Your task to perform on an android device: Search for Mexican restaurants on Maps Image 0: 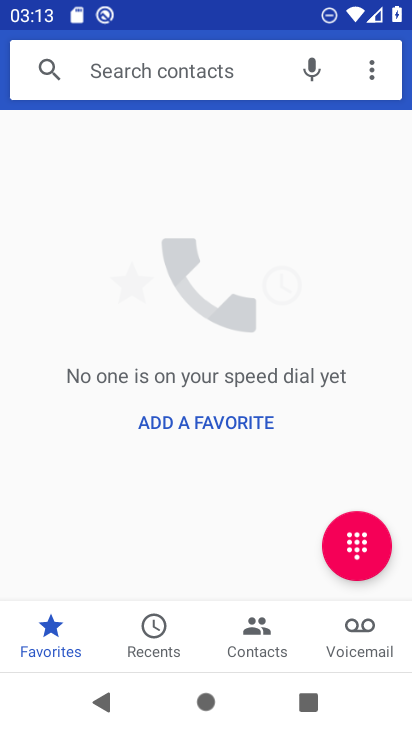
Step 0: press home button
Your task to perform on an android device: Search for Mexican restaurants on Maps Image 1: 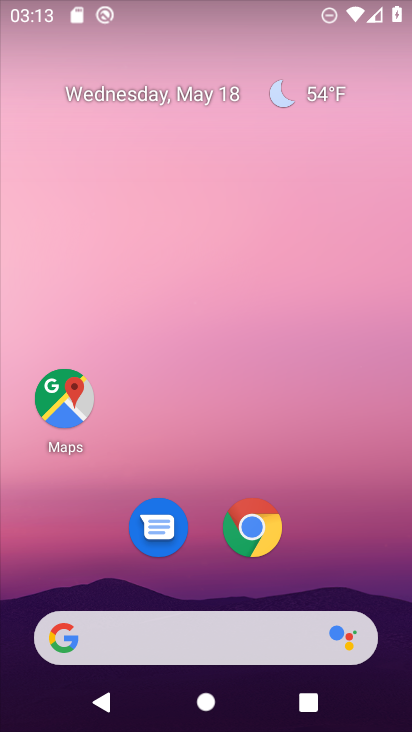
Step 1: click (65, 354)
Your task to perform on an android device: Search for Mexican restaurants on Maps Image 2: 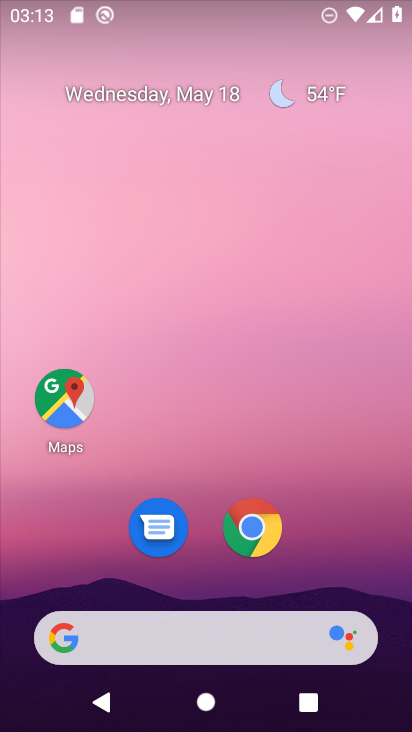
Step 2: click (61, 427)
Your task to perform on an android device: Search for Mexican restaurants on Maps Image 3: 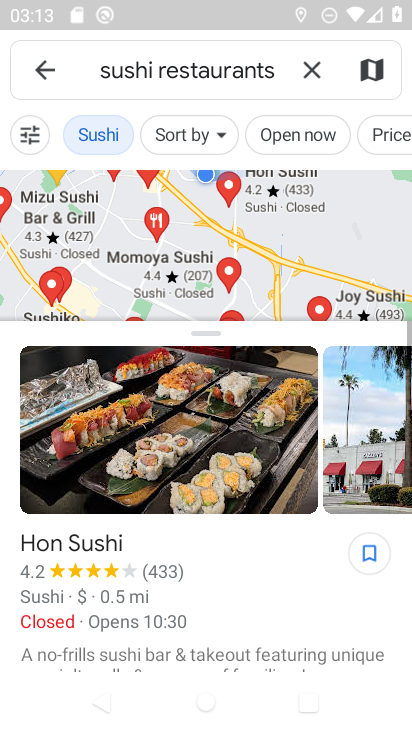
Step 3: click (303, 68)
Your task to perform on an android device: Search for Mexican restaurants on Maps Image 4: 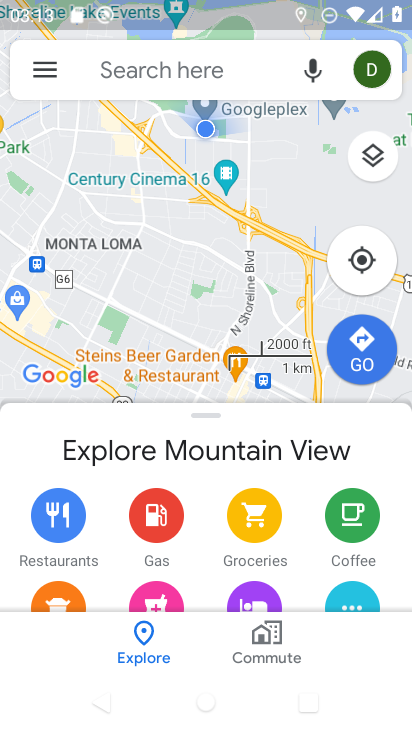
Step 4: click (241, 76)
Your task to perform on an android device: Search for Mexican restaurants on Maps Image 5: 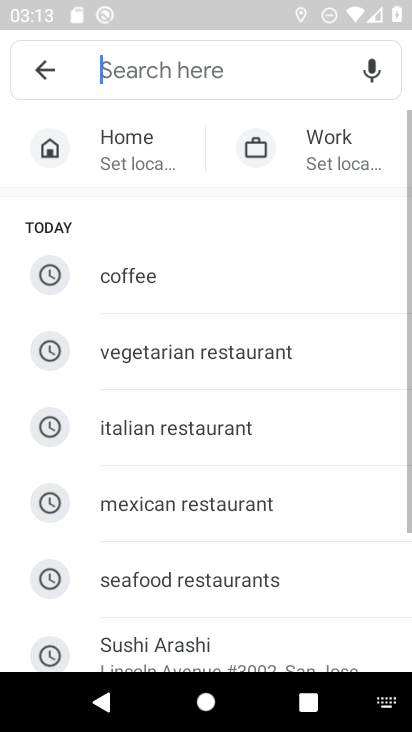
Step 5: click (139, 502)
Your task to perform on an android device: Search for Mexican restaurants on Maps Image 6: 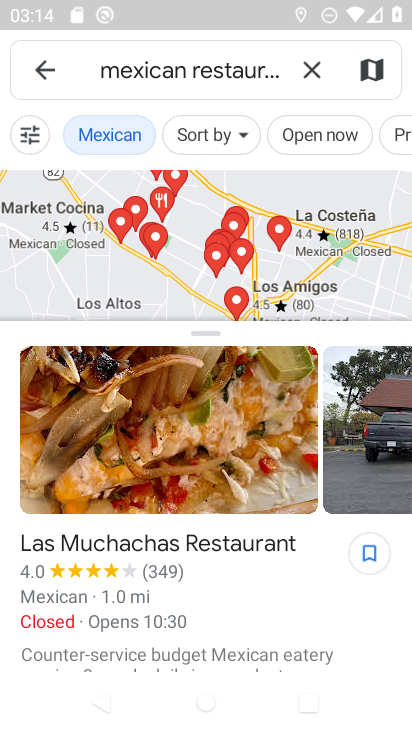
Step 6: task complete